Your task to perform on an android device: Do I have any events this weekend? Image 0: 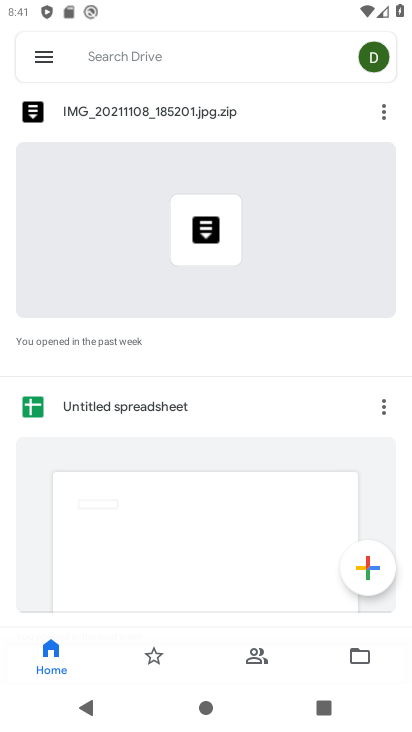
Step 0: press home button
Your task to perform on an android device: Do I have any events this weekend? Image 1: 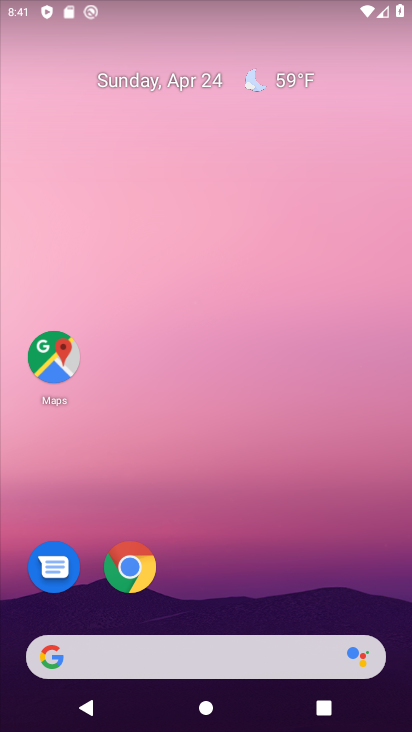
Step 1: click (316, 136)
Your task to perform on an android device: Do I have any events this weekend? Image 2: 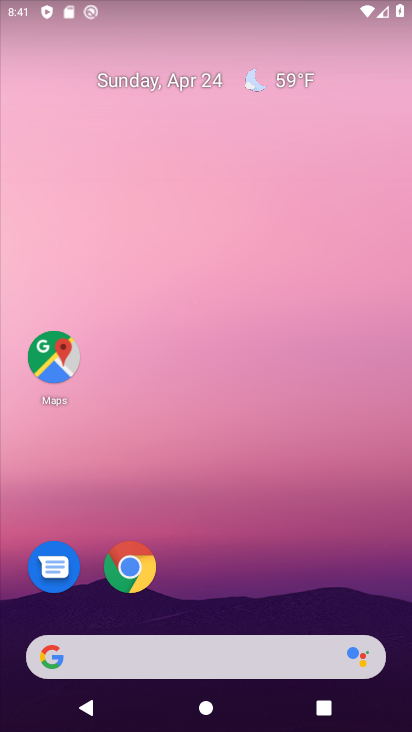
Step 2: drag from (388, 627) to (357, 118)
Your task to perform on an android device: Do I have any events this weekend? Image 3: 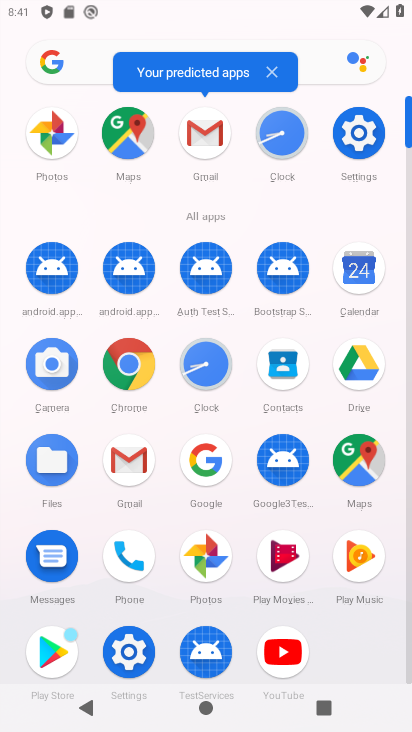
Step 3: click (355, 276)
Your task to perform on an android device: Do I have any events this weekend? Image 4: 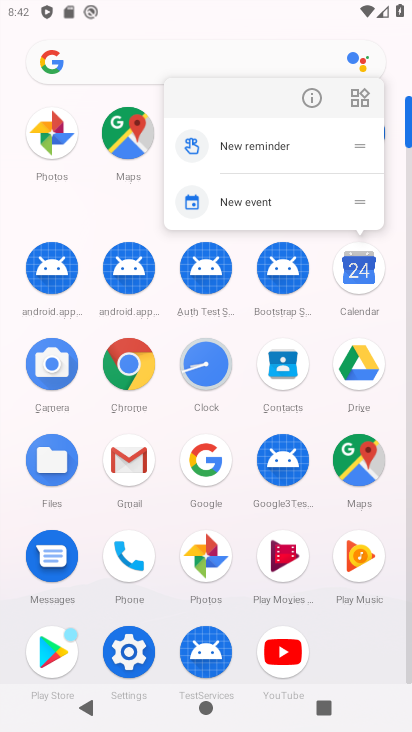
Step 4: click (351, 264)
Your task to perform on an android device: Do I have any events this weekend? Image 5: 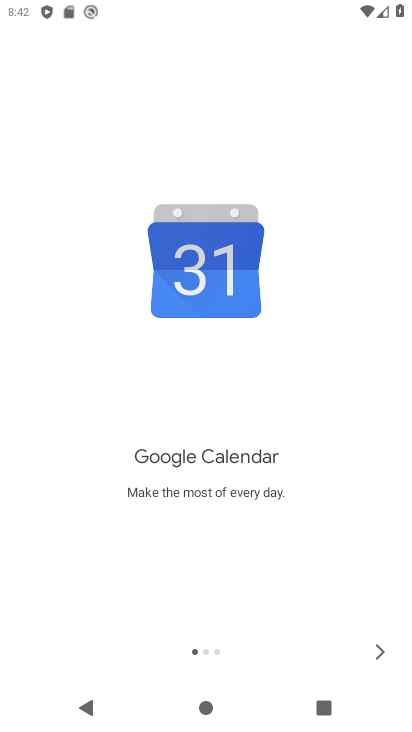
Step 5: click (375, 645)
Your task to perform on an android device: Do I have any events this weekend? Image 6: 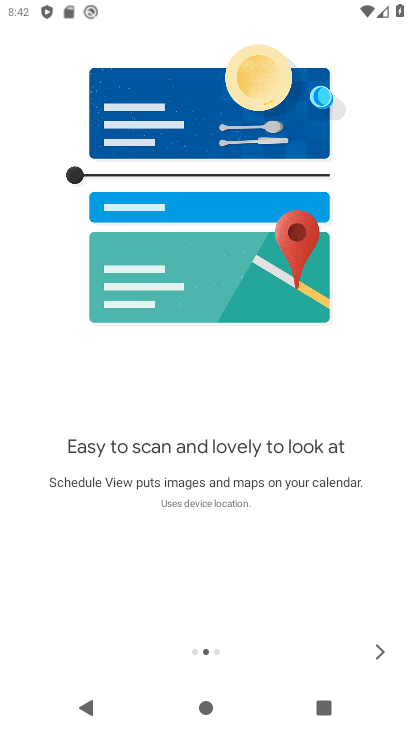
Step 6: click (375, 645)
Your task to perform on an android device: Do I have any events this weekend? Image 7: 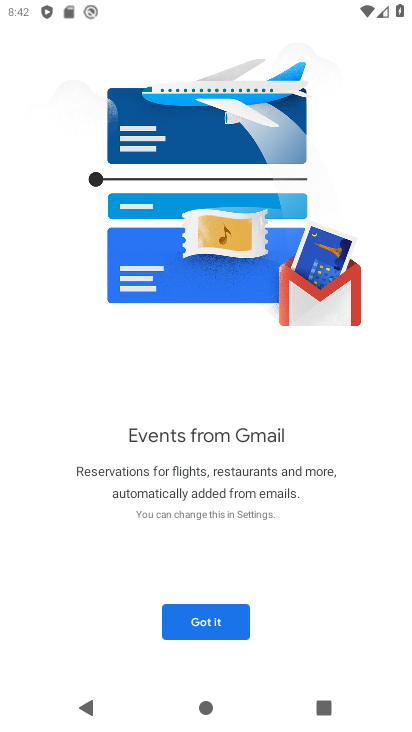
Step 7: click (216, 626)
Your task to perform on an android device: Do I have any events this weekend? Image 8: 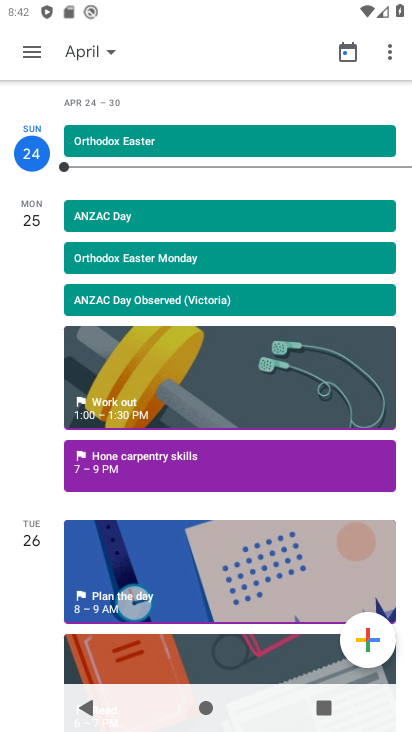
Step 8: click (36, 53)
Your task to perform on an android device: Do I have any events this weekend? Image 9: 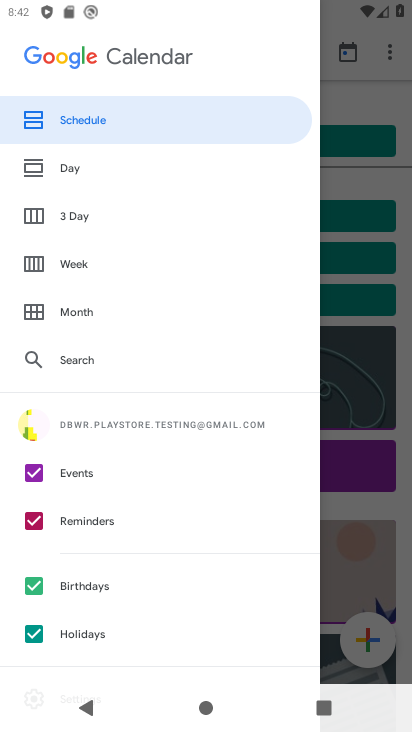
Step 9: click (64, 261)
Your task to perform on an android device: Do I have any events this weekend? Image 10: 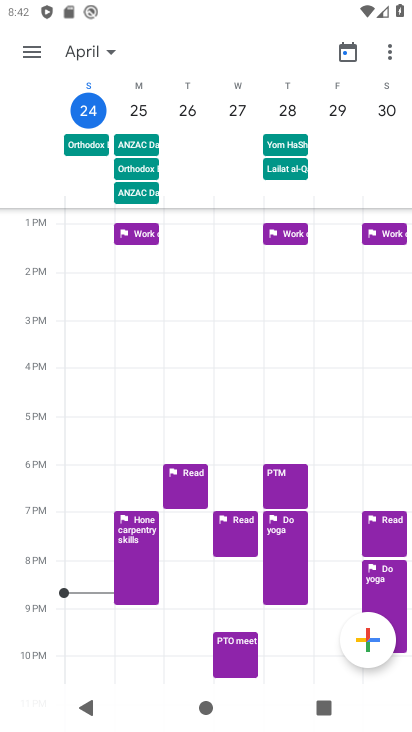
Step 10: task complete